Your task to perform on an android device: Open the calendar app, open the side menu, and click the "Day" option Image 0: 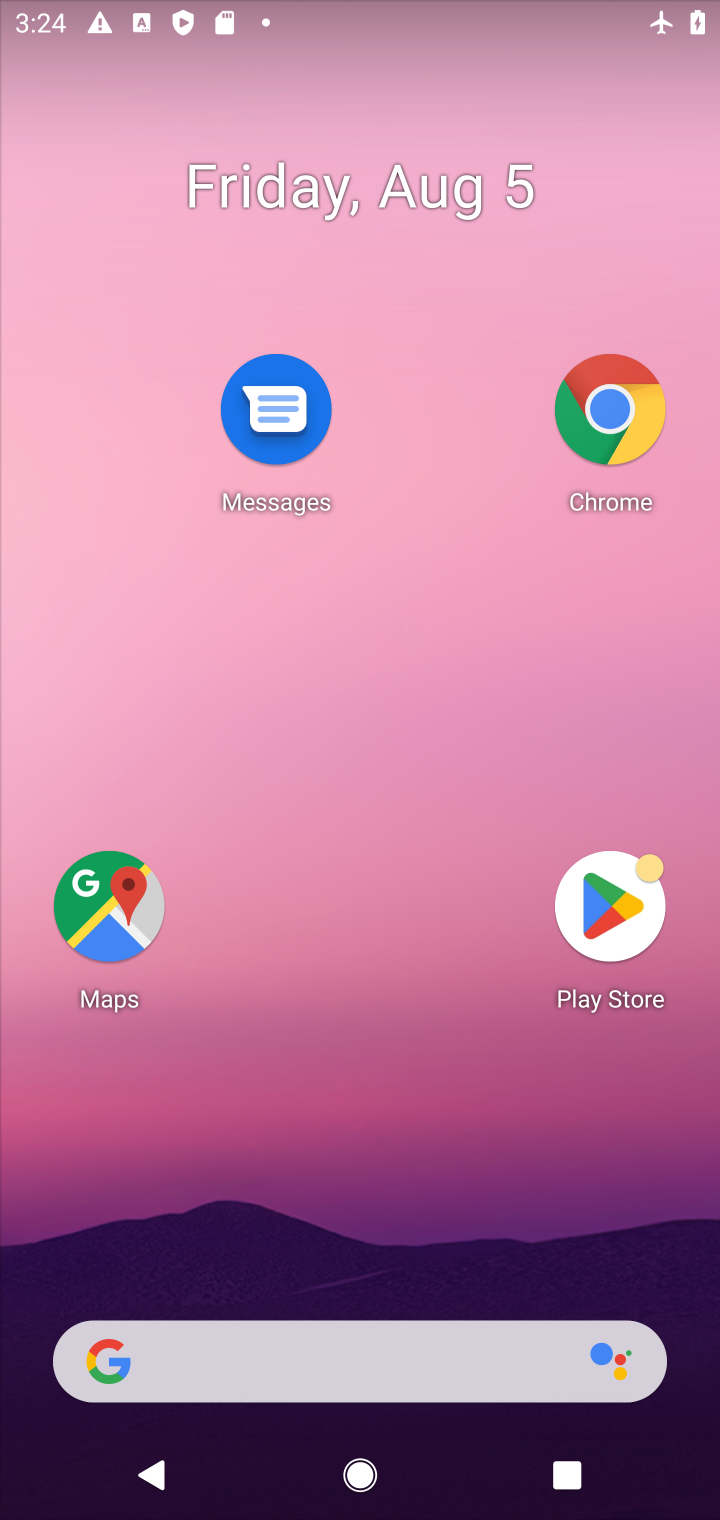
Step 0: drag from (371, 1226) to (441, 438)
Your task to perform on an android device: Open the calendar app, open the side menu, and click the "Day" option Image 1: 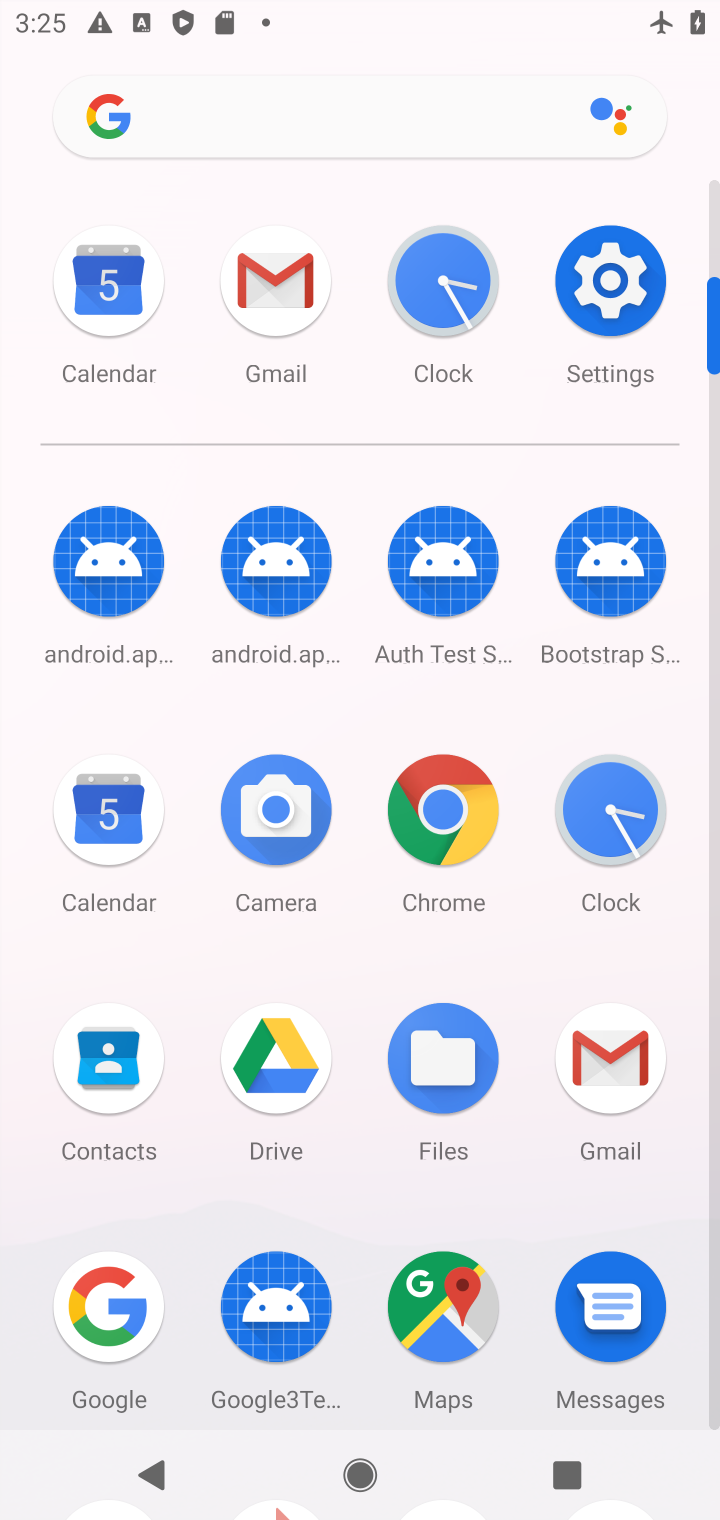
Step 1: click (114, 833)
Your task to perform on an android device: Open the calendar app, open the side menu, and click the "Day" option Image 2: 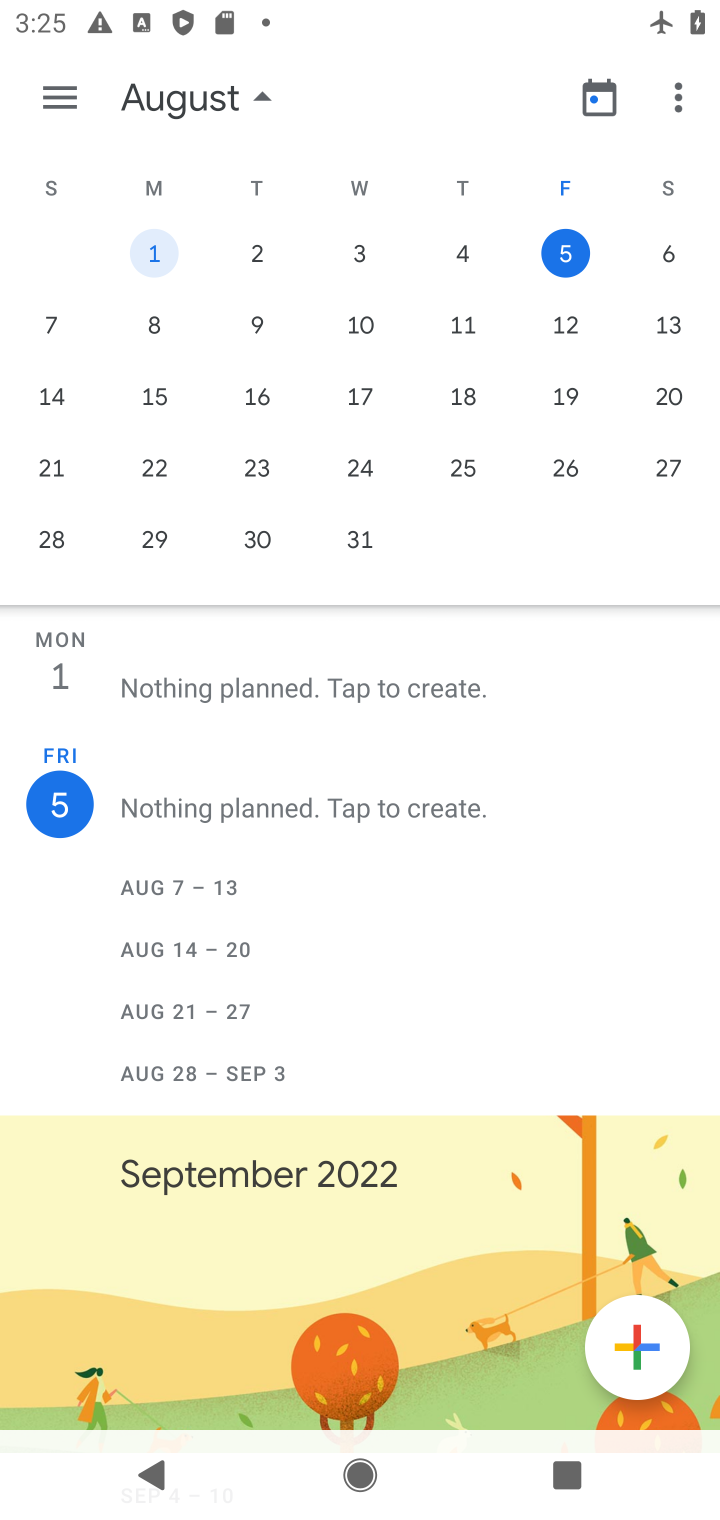
Step 2: click (42, 92)
Your task to perform on an android device: Open the calendar app, open the side menu, and click the "Day" option Image 3: 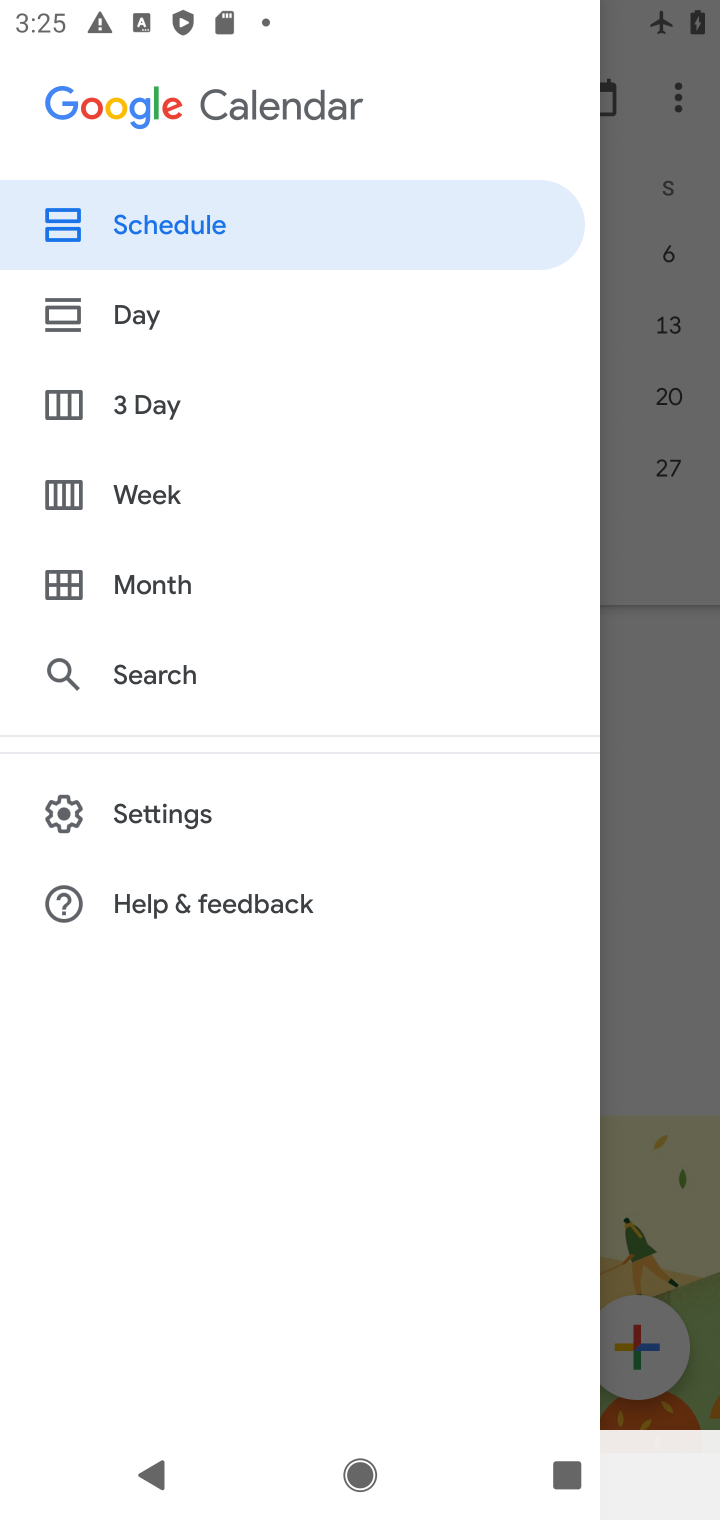
Step 3: click (186, 323)
Your task to perform on an android device: Open the calendar app, open the side menu, and click the "Day" option Image 4: 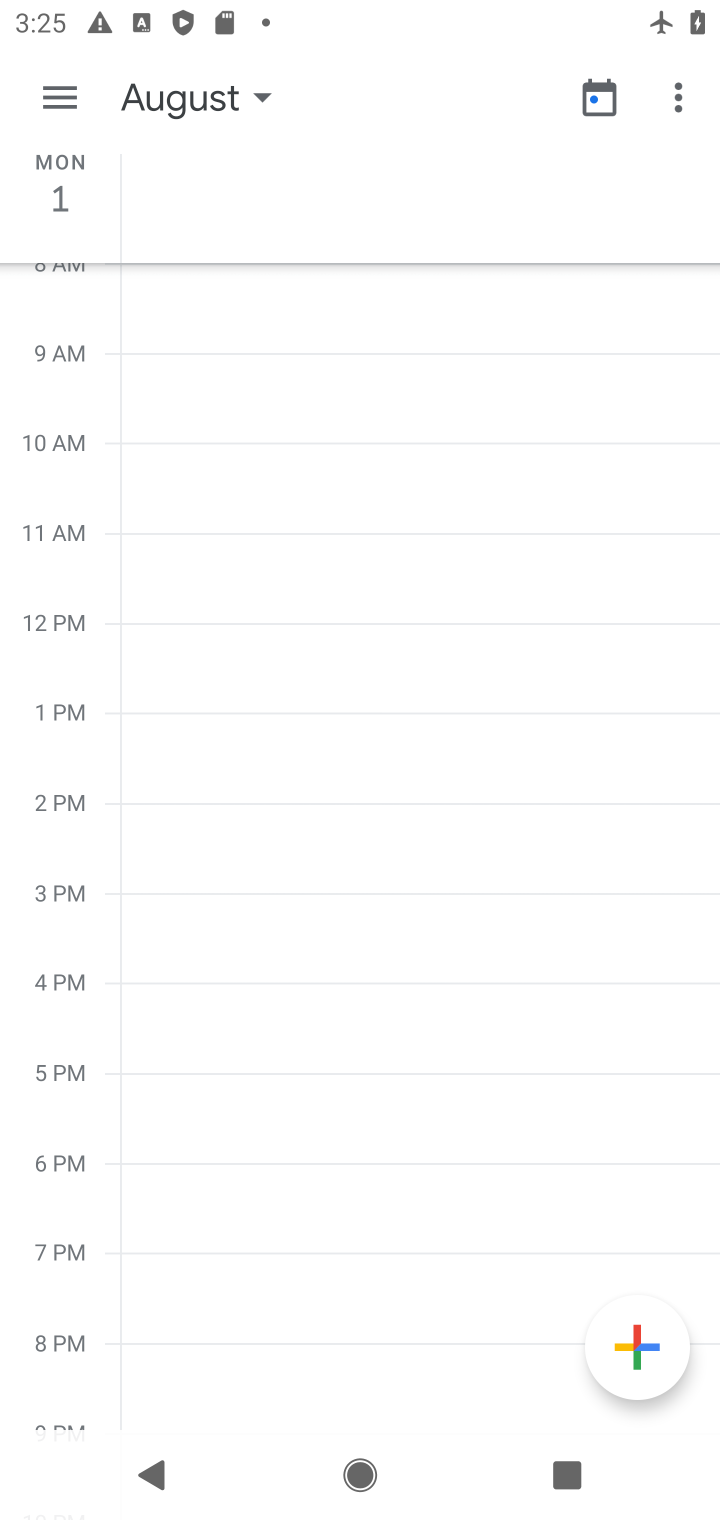
Step 4: click (51, 109)
Your task to perform on an android device: Open the calendar app, open the side menu, and click the "Day" option Image 5: 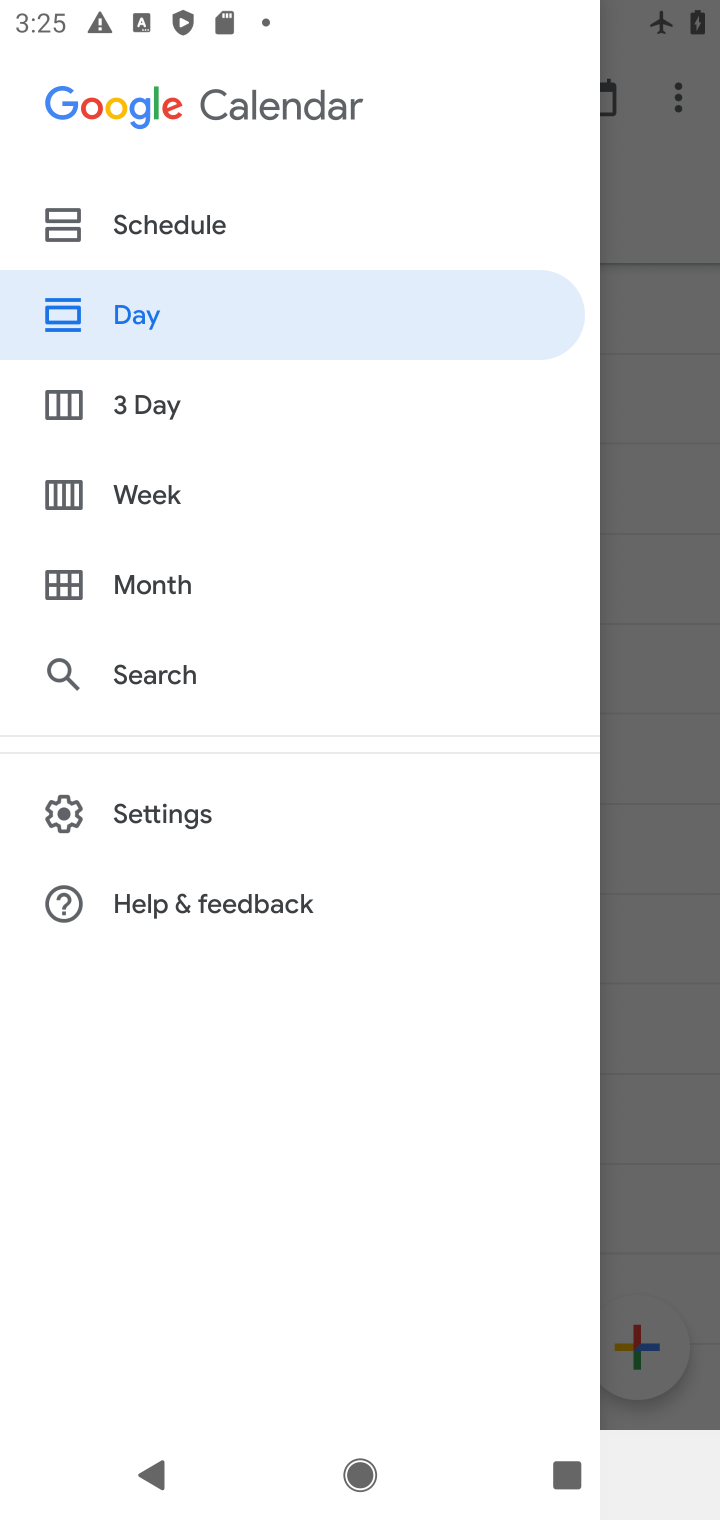
Step 5: task complete